Your task to perform on an android device: create a new album in the google photos Image 0: 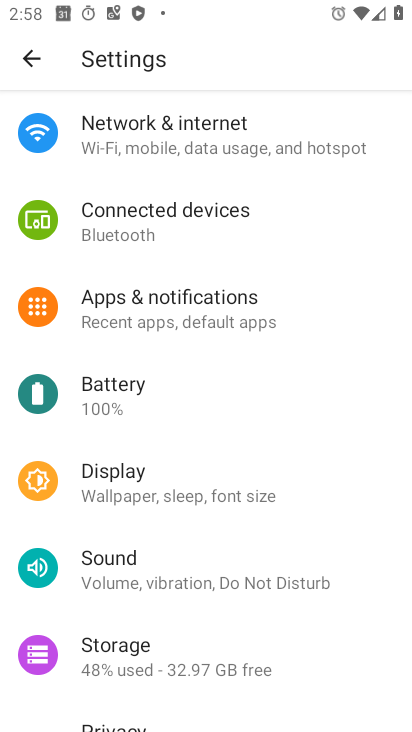
Step 0: press home button
Your task to perform on an android device: create a new album in the google photos Image 1: 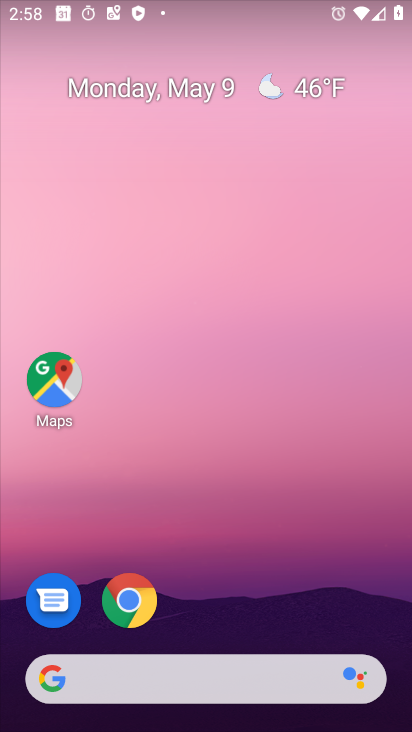
Step 1: drag from (138, 656) to (329, 21)
Your task to perform on an android device: create a new album in the google photos Image 2: 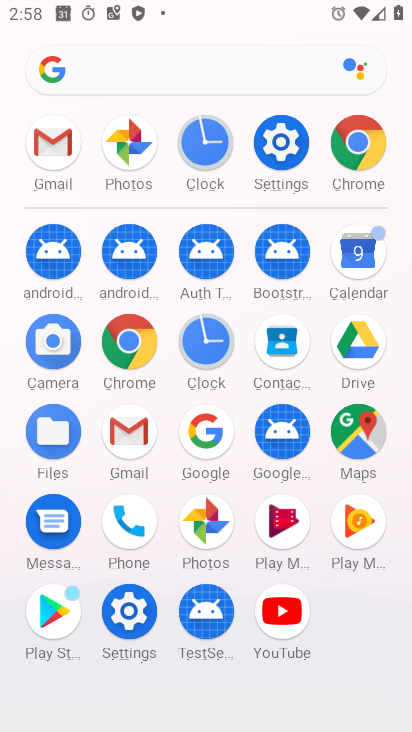
Step 2: click (207, 517)
Your task to perform on an android device: create a new album in the google photos Image 3: 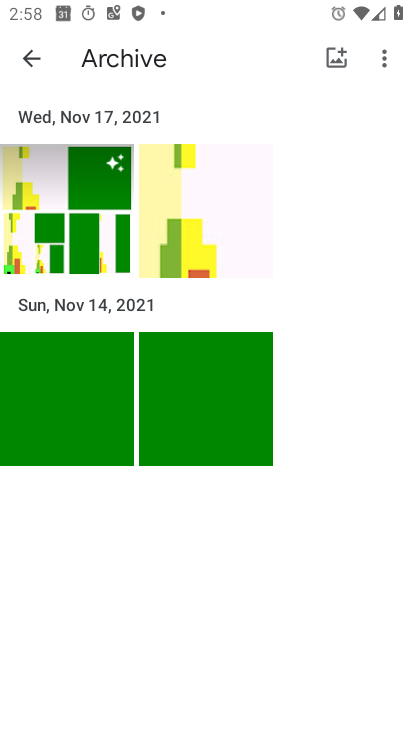
Step 3: click (34, 60)
Your task to perform on an android device: create a new album in the google photos Image 4: 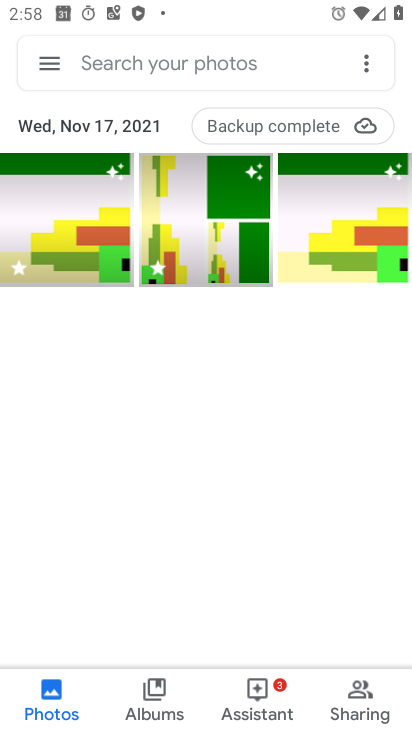
Step 4: click (359, 61)
Your task to perform on an android device: create a new album in the google photos Image 5: 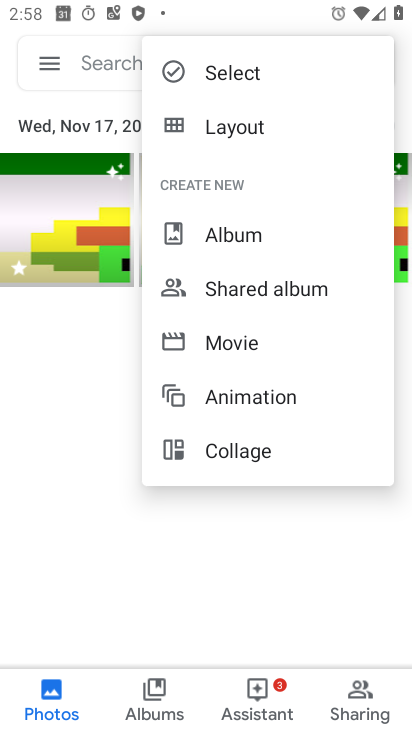
Step 5: click (219, 217)
Your task to perform on an android device: create a new album in the google photos Image 6: 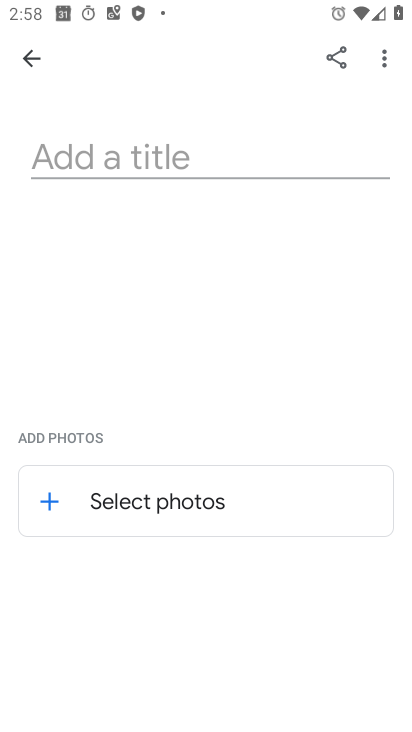
Step 6: click (83, 169)
Your task to perform on an android device: create a new album in the google photos Image 7: 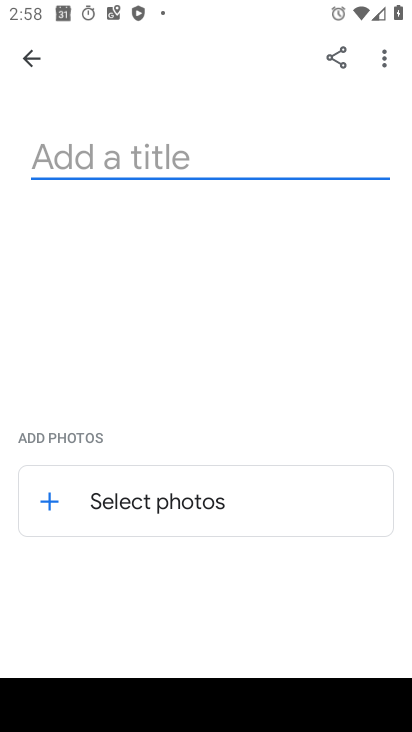
Step 7: type "vhvh"
Your task to perform on an android device: create a new album in the google photos Image 8: 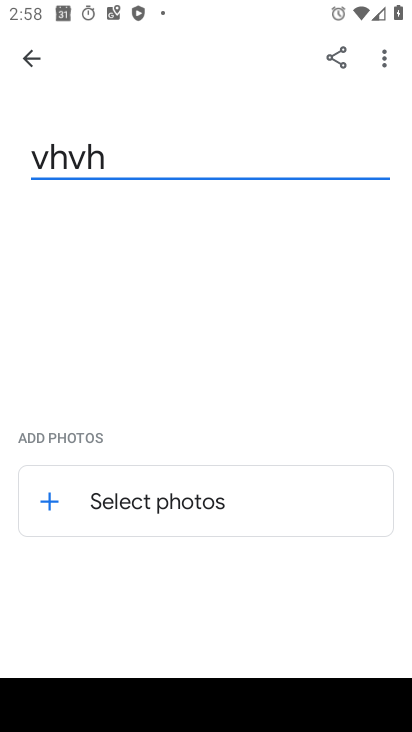
Step 8: click (130, 486)
Your task to perform on an android device: create a new album in the google photos Image 9: 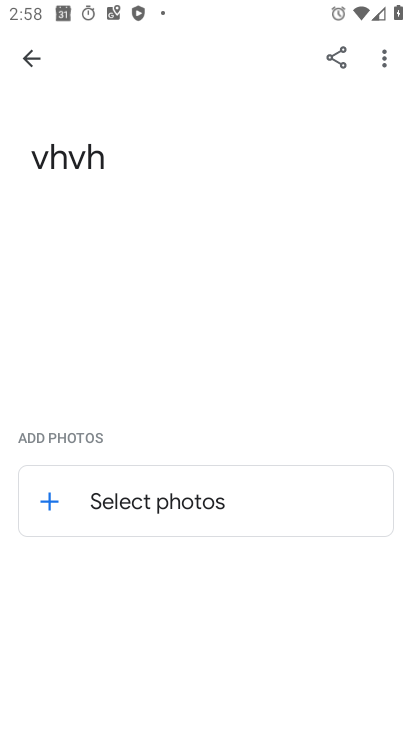
Step 9: click (95, 492)
Your task to perform on an android device: create a new album in the google photos Image 10: 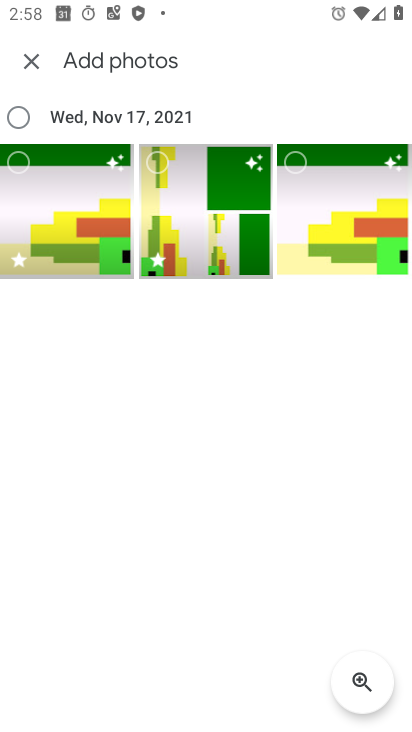
Step 10: click (32, 114)
Your task to perform on an android device: create a new album in the google photos Image 11: 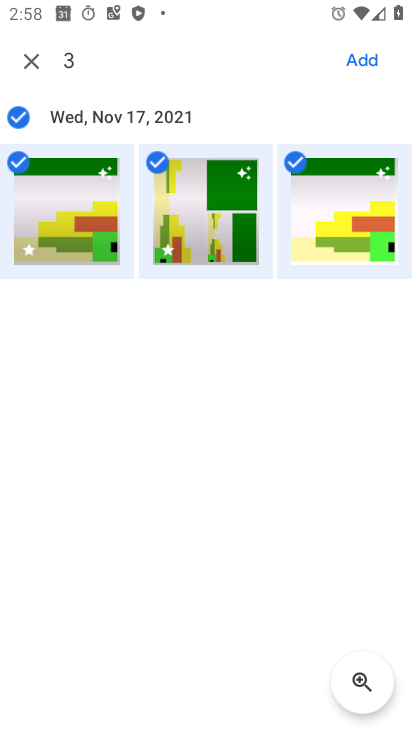
Step 11: click (357, 70)
Your task to perform on an android device: create a new album in the google photos Image 12: 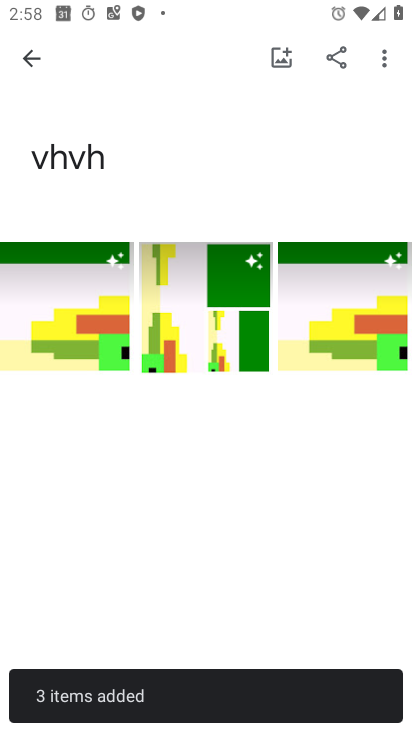
Step 12: task complete